Your task to perform on an android device: turn smart compose on in the gmail app Image 0: 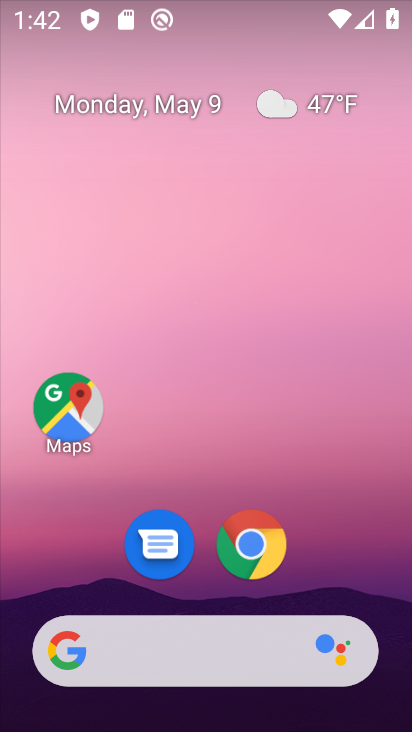
Step 0: drag from (220, 616) to (223, 401)
Your task to perform on an android device: turn smart compose on in the gmail app Image 1: 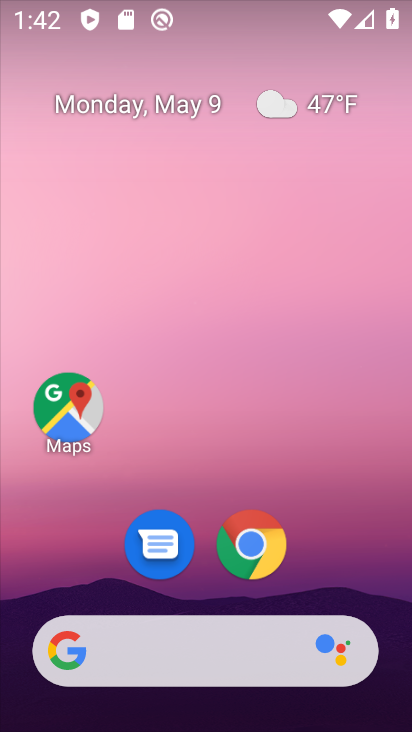
Step 1: drag from (201, 610) to (233, 272)
Your task to perform on an android device: turn smart compose on in the gmail app Image 2: 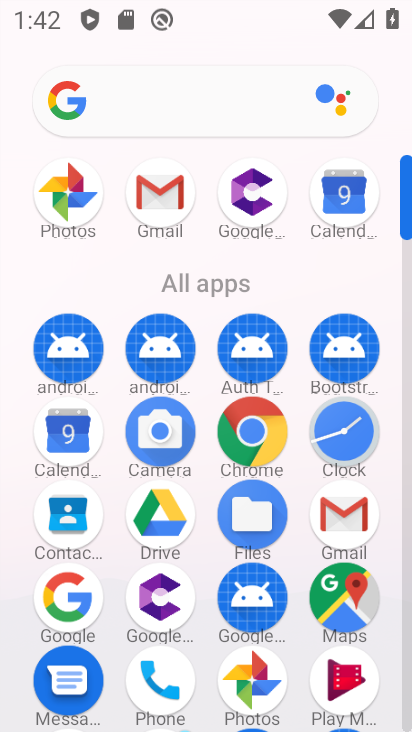
Step 2: click (345, 512)
Your task to perform on an android device: turn smart compose on in the gmail app Image 3: 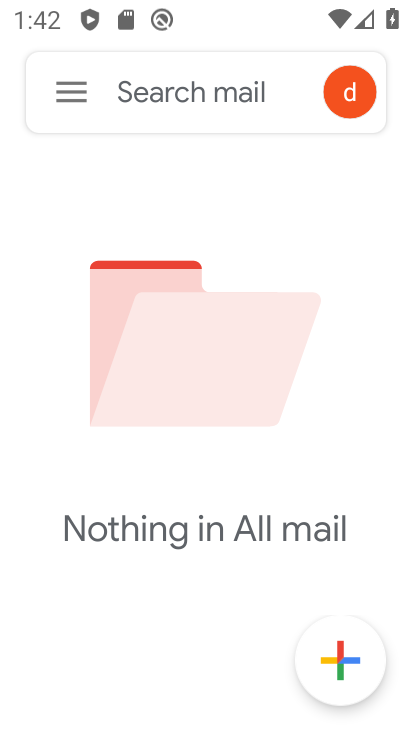
Step 3: click (81, 84)
Your task to perform on an android device: turn smart compose on in the gmail app Image 4: 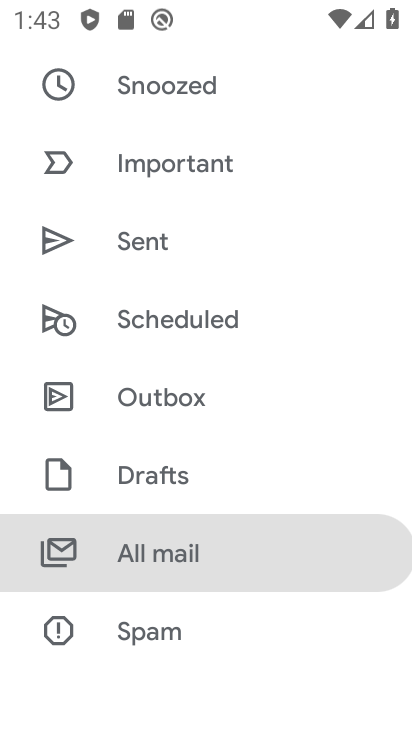
Step 4: drag from (226, 639) to (302, 328)
Your task to perform on an android device: turn smart compose on in the gmail app Image 5: 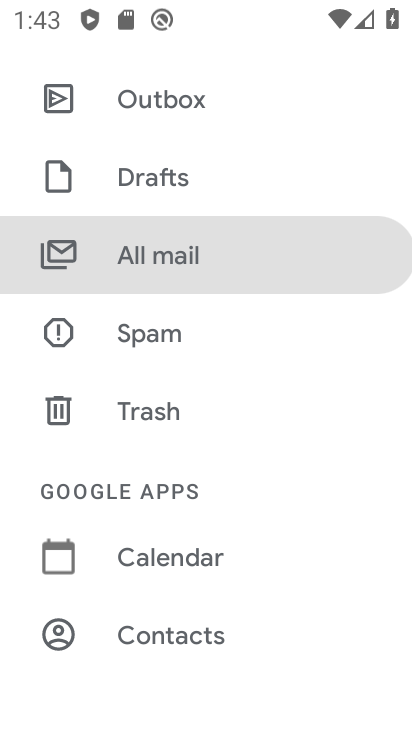
Step 5: drag from (219, 593) to (285, 346)
Your task to perform on an android device: turn smart compose on in the gmail app Image 6: 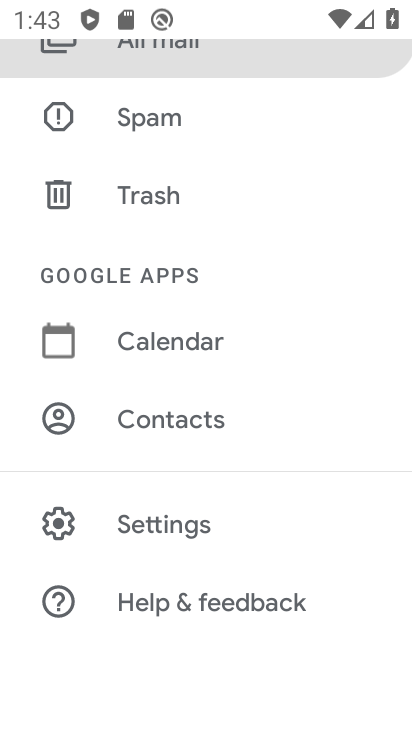
Step 6: click (265, 519)
Your task to perform on an android device: turn smart compose on in the gmail app Image 7: 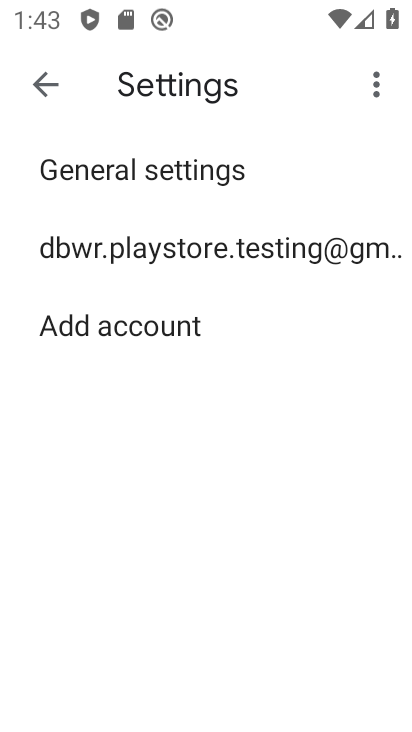
Step 7: click (271, 230)
Your task to perform on an android device: turn smart compose on in the gmail app Image 8: 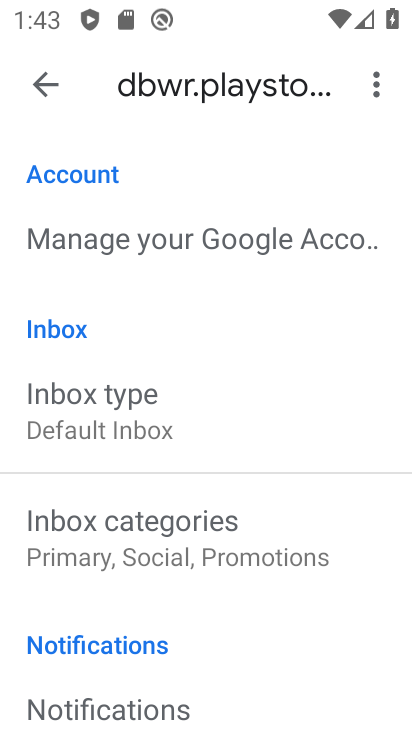
Step 8: task complete